Your task to perform on an android device: find photos in the google photos app Image 0: 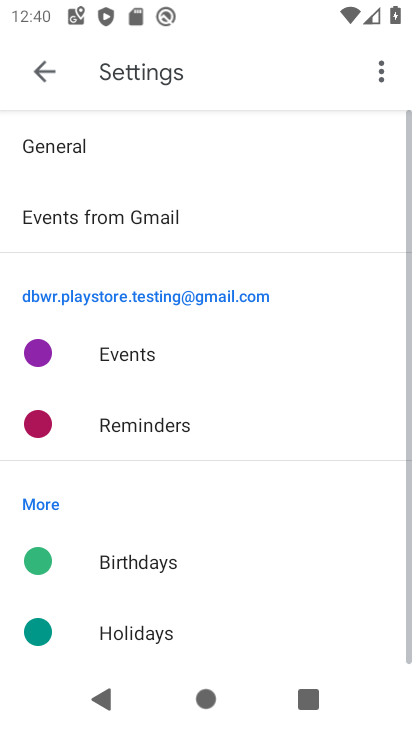
Step 0: drag from (328, 556) to (383, 438)
Your task to perform on an android device: find photos in the google photos app Image 1: 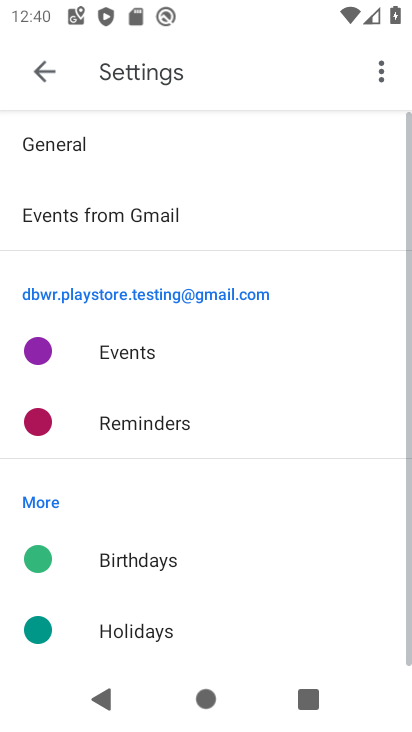
Step 1: press home button
Your task to perform on an android device: find photos in the google photos app Image 2: 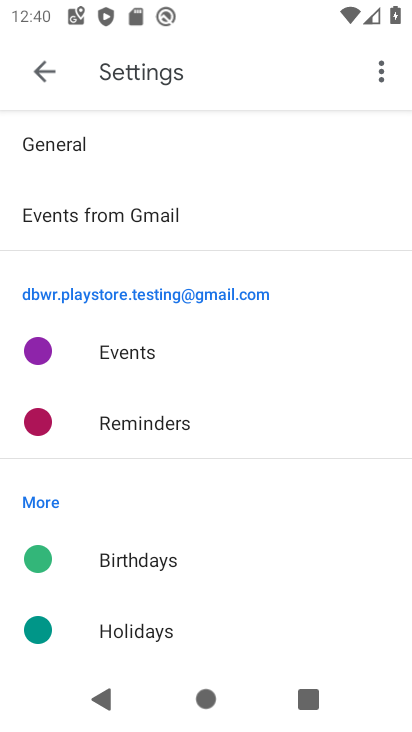
Step 2: click (383, 438)
Your task to perform on an android device: find photos in the google photos app Image 3: 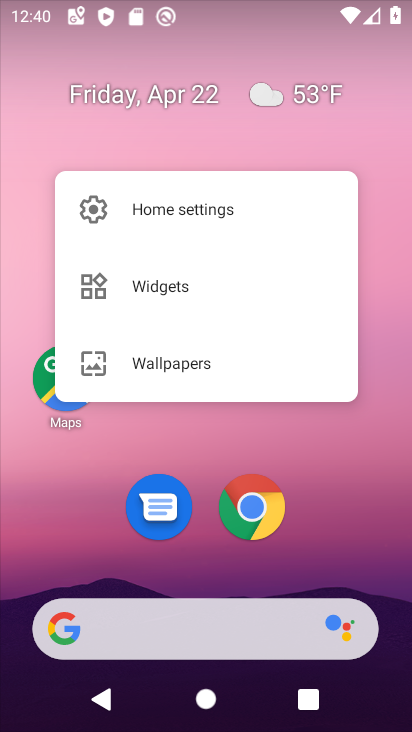
Step 3: drag from (327, 519) to (318, 88)
Your task to perform on an android device: find photos in the google photos app Image 4: 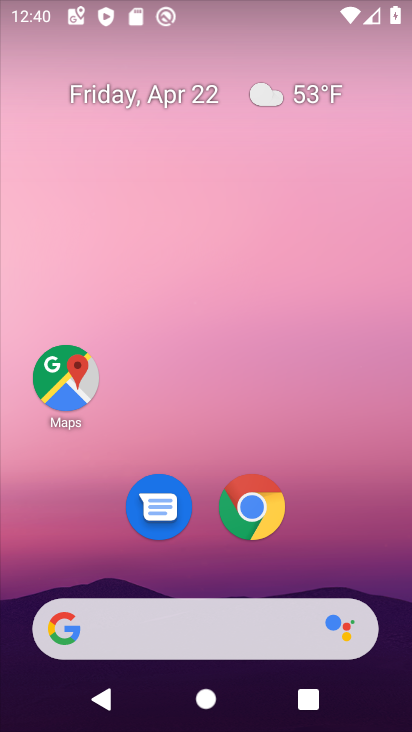
Step 4: drag from (314, 482) to (252, 71)
Your task to perform on an android device: find photos in the google photos app Image 5: 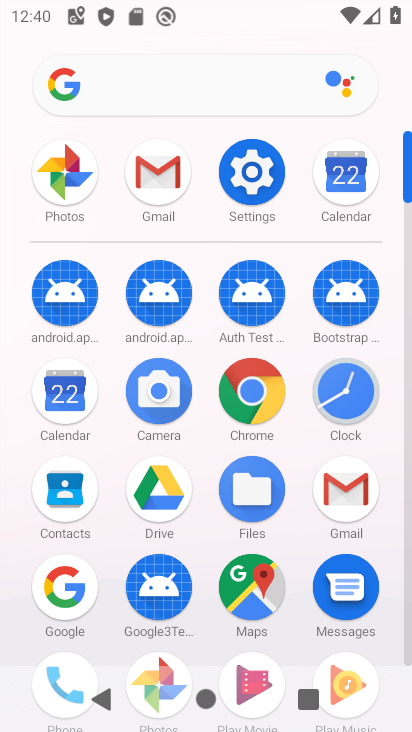
Step 5: click (70, 167)
Your task to perform on an android device: find photos in the google photos app Image 6: 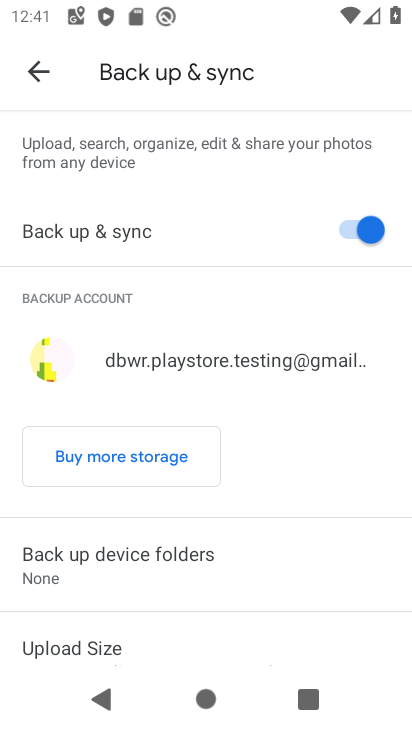
Step 6: click (34, 64)
Your task to perform on an android device: find photos in the google photos app Image 7: 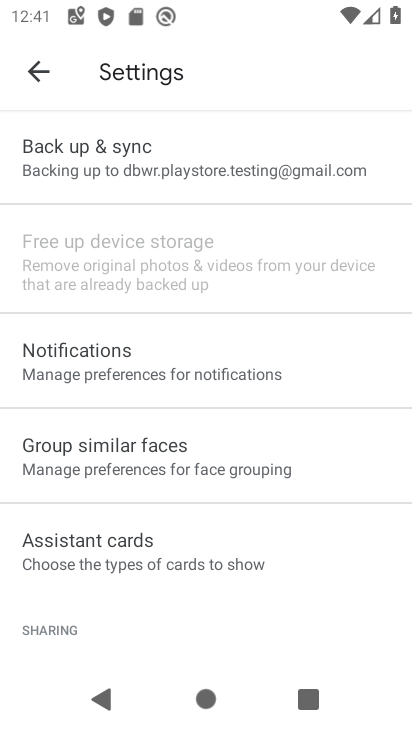
Step 7: click (34, 75)
Your task to perform on an android device: find photos in the google photos app Image 8: 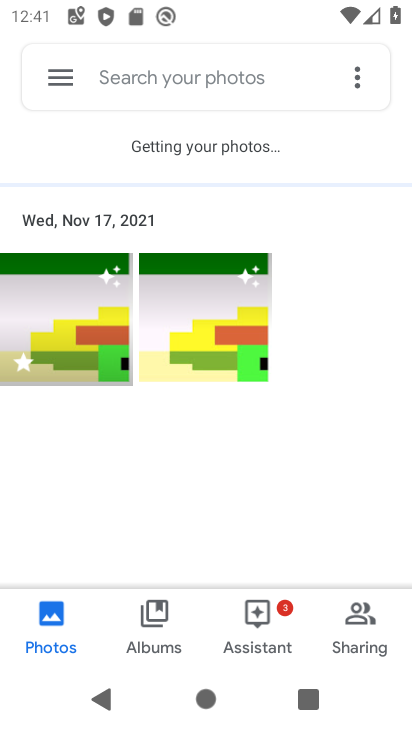
Step 8: task complete